Your task to perform on an android device: Open battery settings Image 0: 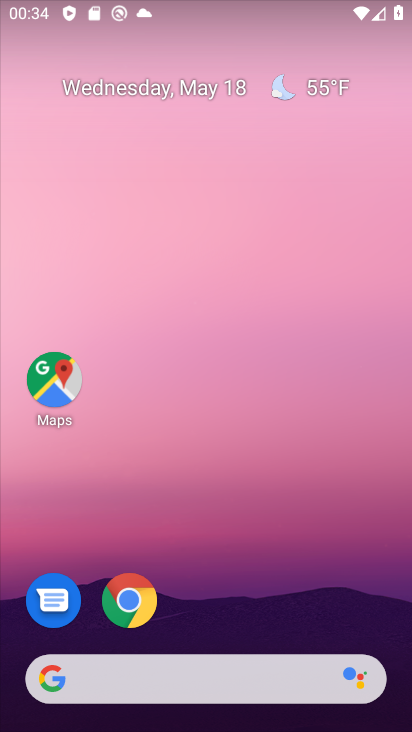
Step 0: drag from (192, 657) to (162, 9)
Your task to perform on an android device: Open battery settings Image 1: 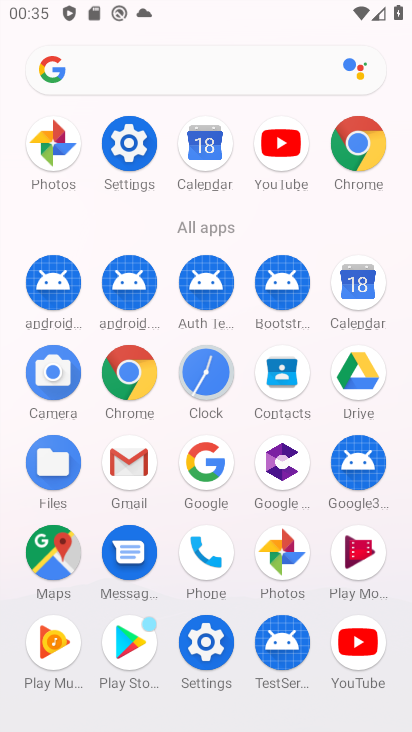
Step 1: click (126, 141)
Your task to perform on an android device: Open battery settings Image 2: 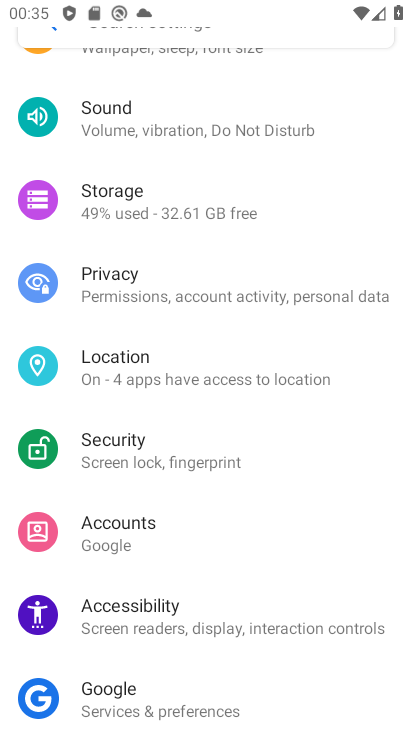
Step 2: drag from (106, 168) to (62, 559)
Your task to perform on an android device: Open battery settings Image 3: 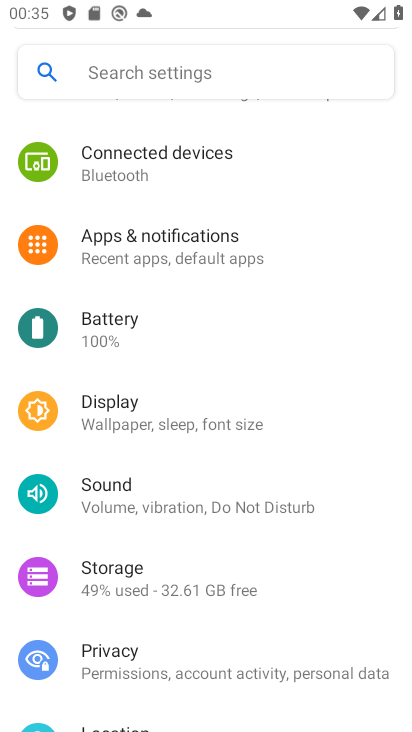
Step 3: click (102, 326)
Your task to perform on an android device: Open battery settings Image 4: 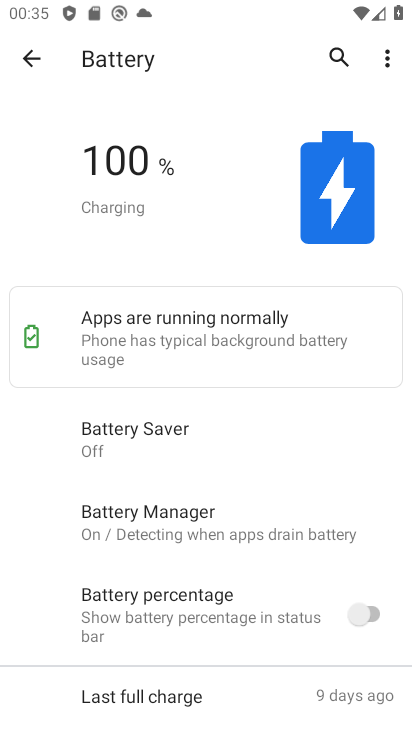
Step 4: task complete